Your task to perform on an android device: Go to Maps Image 0: 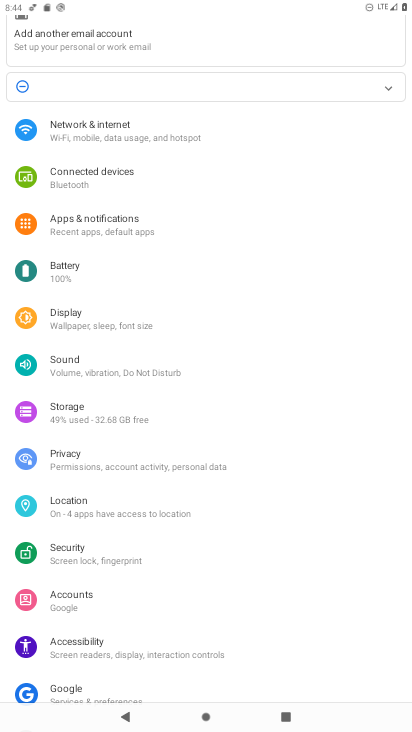
Step 0: press home button
Your task to perform on an android device: Go to Maps Image 1: 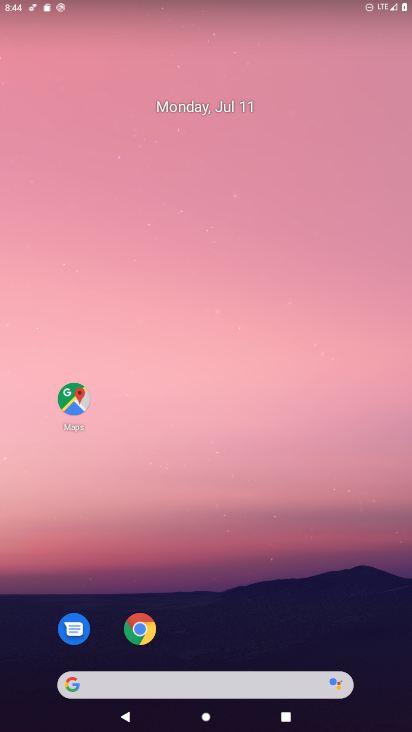
Step 1: click (85, 405)
Your task to perform on an android device: Go to Maps Image 2: 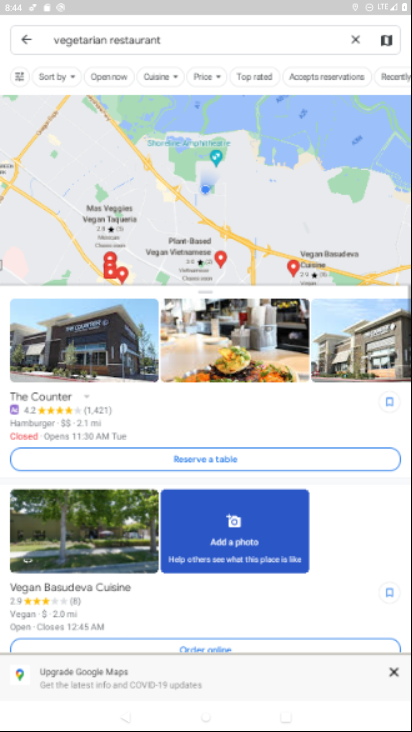
Step 2: click (63, 401)
Your task to perform on an android device: Go to Maps Image 3: 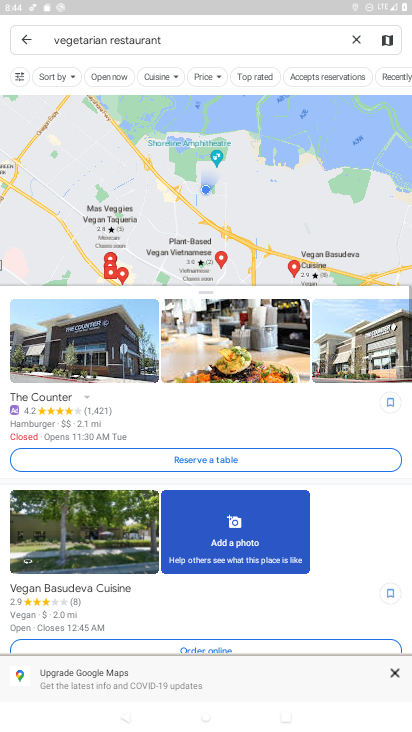
Step 3: task complete